Your task to perform on an android device: turn smart compose on in the gmail app Image 0: 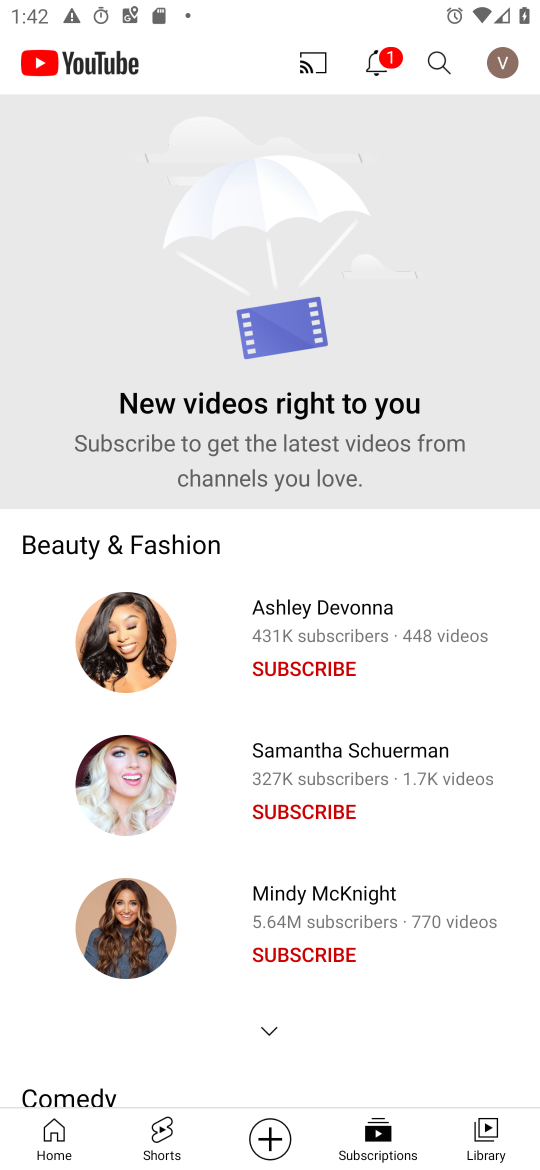
Step 0: press home button
Your task to perform on an android device: turn smart compose on in the gmail app Image 1: 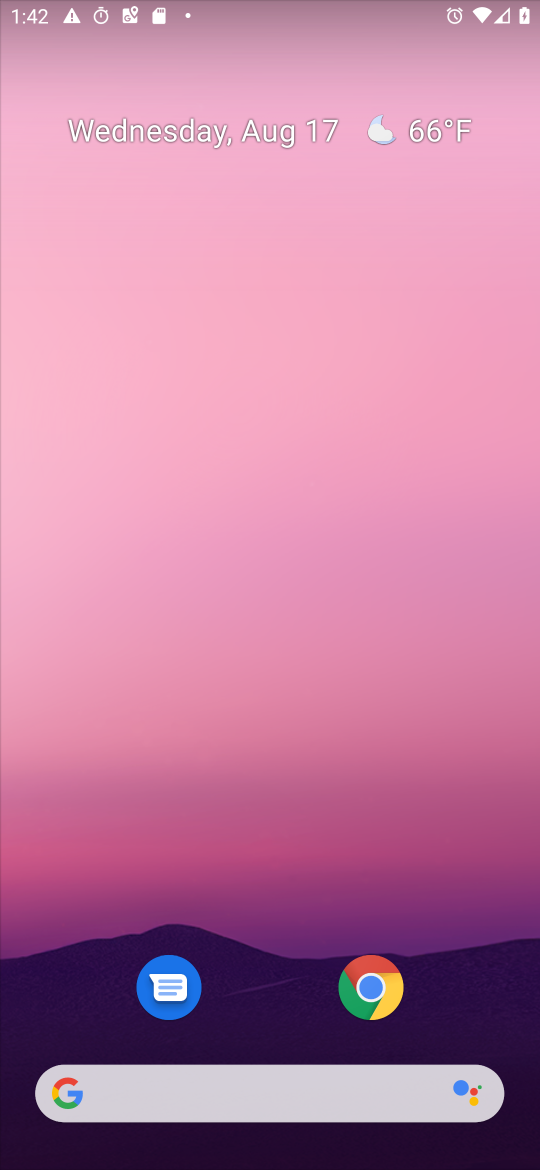
Step 1: drag from (75, 1148) to (416, 375)
Your task to perform on an android device: turn smart compose on in the gmail app Image 2: 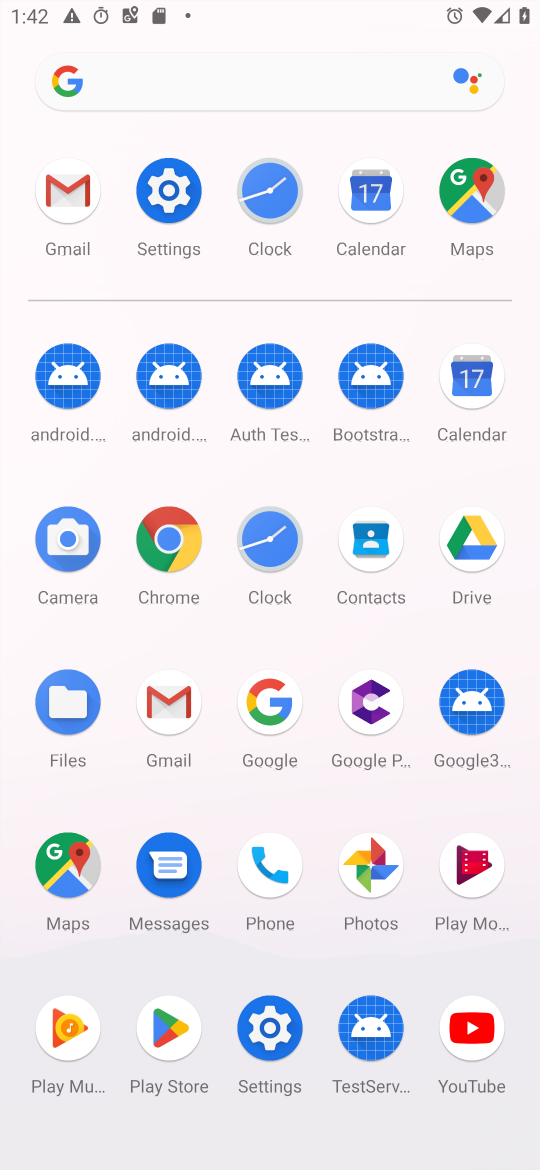
Step 2: click (169, 732)
Your task to perform on an android device: turn smart compose on in the gmail app Image 3: 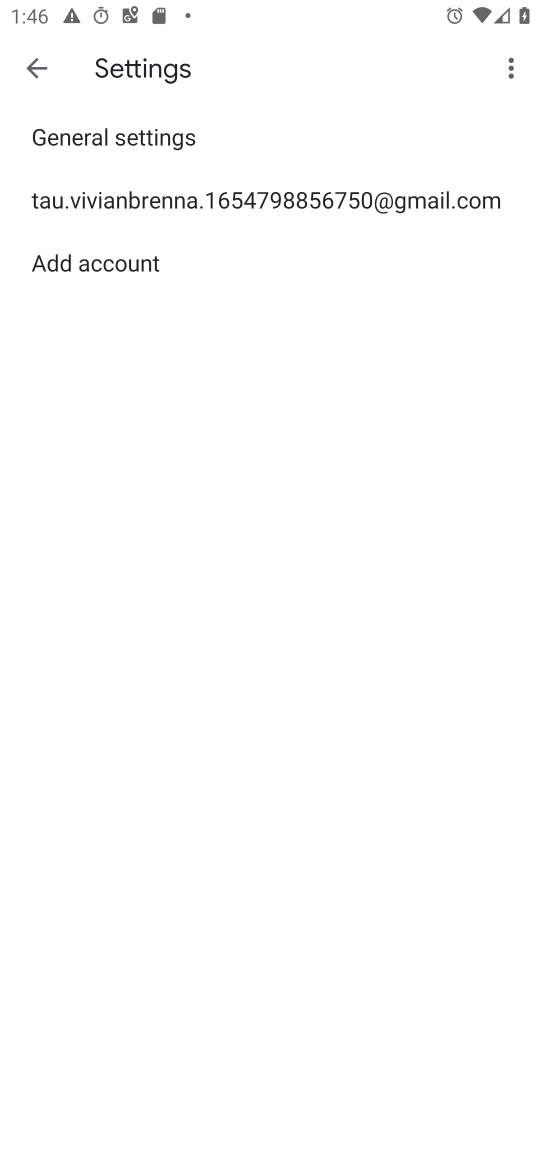
Step 3: press home button
Your task to perform on an android device: turn smart compose on in the gmail app Image 4: 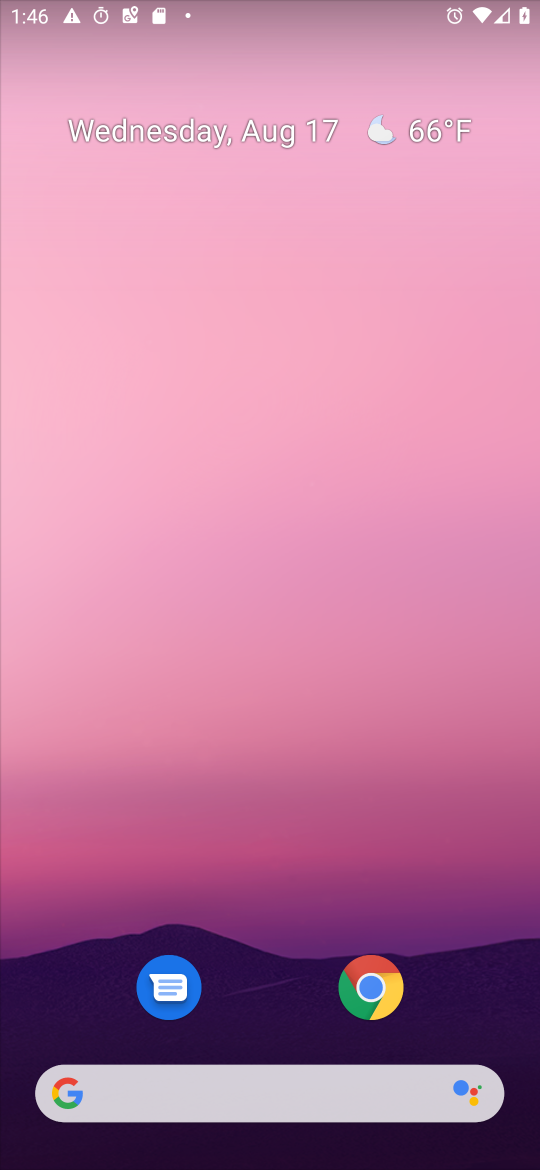
Step 4: click (376, 985)
Your task to perform on an android device: turn smart compose on in the gmail app Image 5: 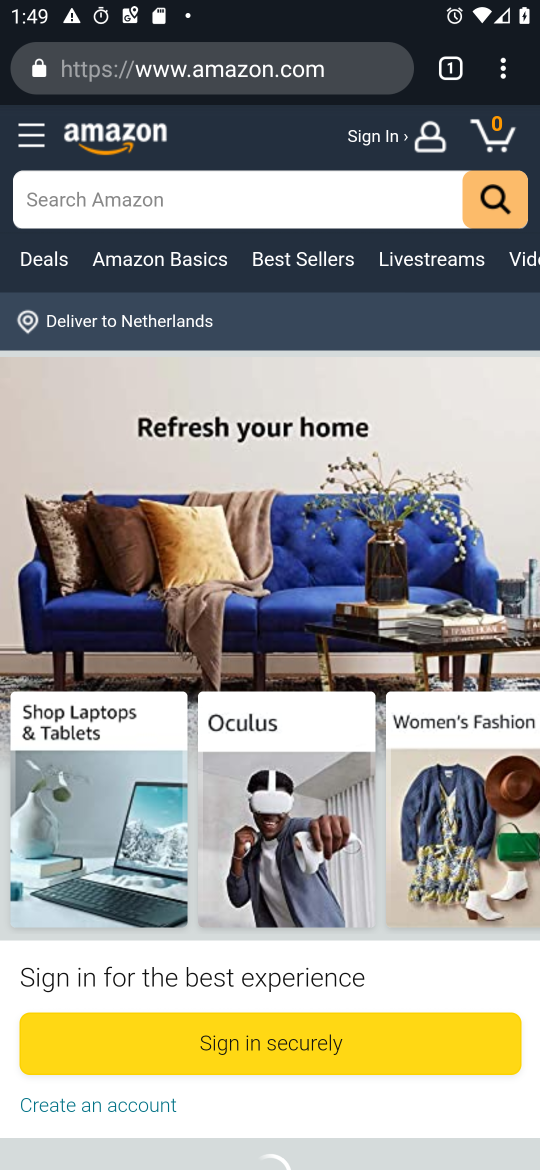
Step 5: press home button
Your task to perform on an android device: turn smart compose on in the gmail app Image 6: 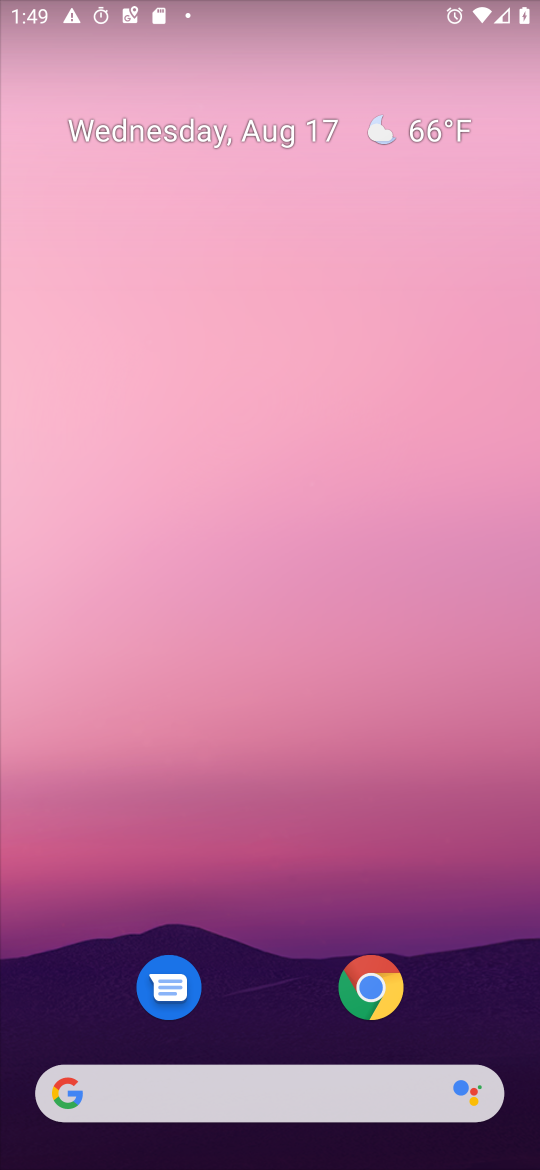
Step 6: drag from (12, 1102) to (476, 371)
Your task to perform on an android device: turn smart compose on in the gmail app Image 7: 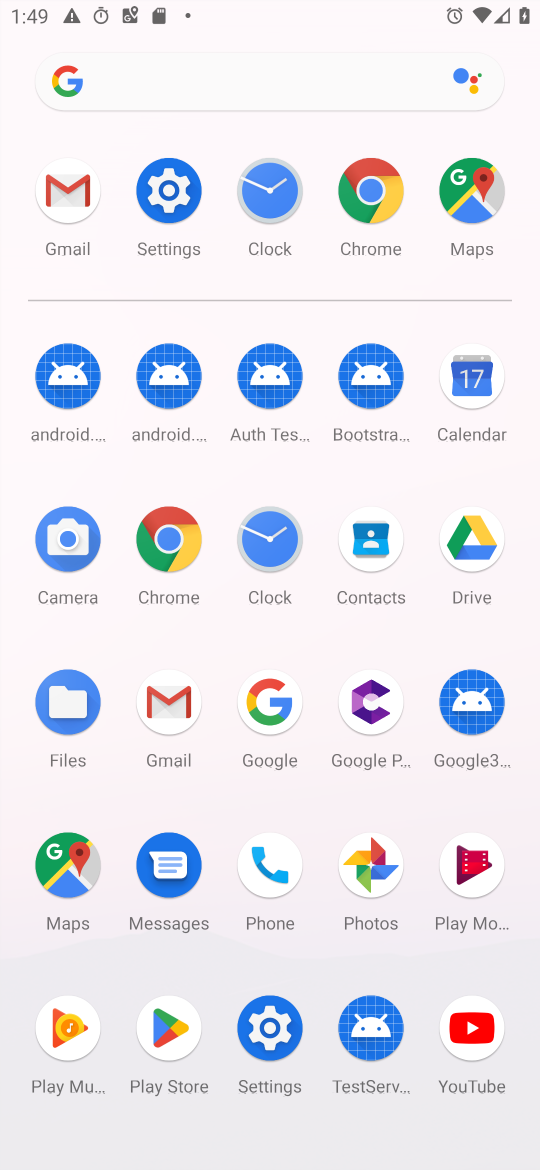
Step 7: click (190, 733)
Your task to perform on an android device: turn smart compose on in the gmail app Image 8: 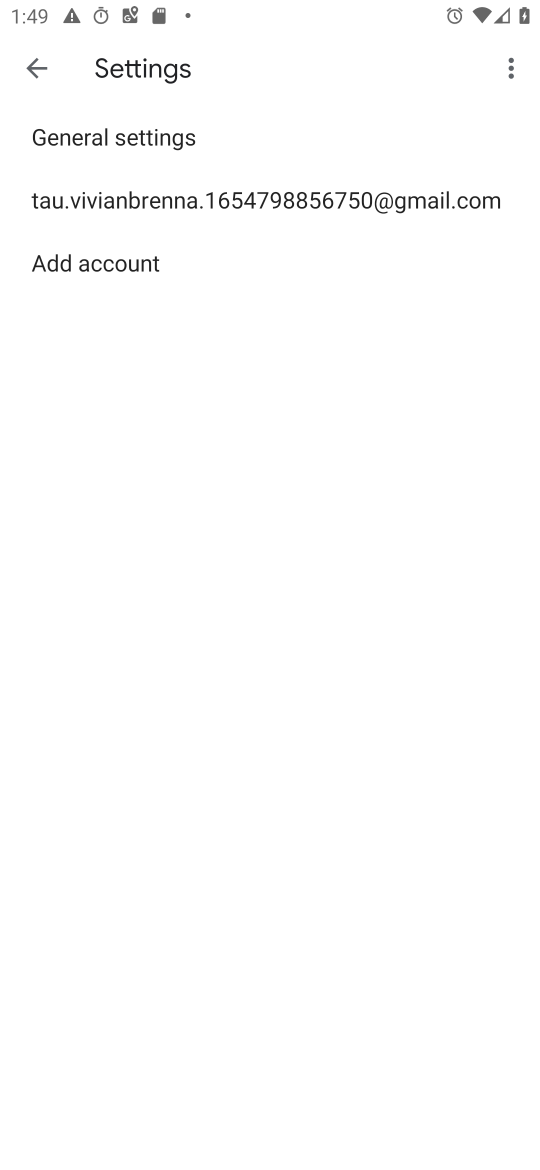
Step 8: click (120, 200)
Your task to perform on an android device: turn smart compose on in the gmail app Image 9: 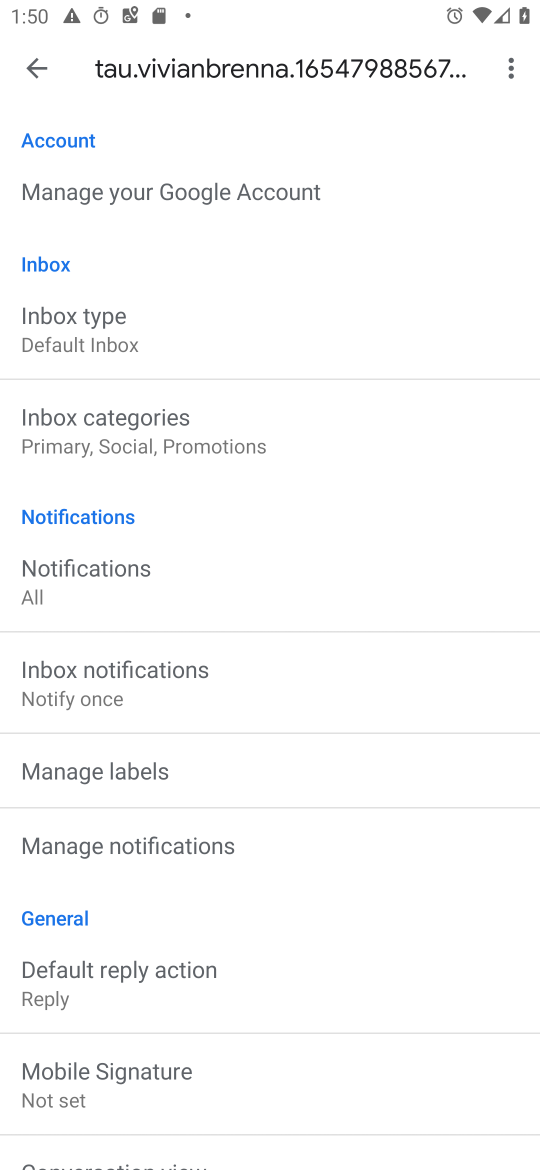
Step 9: click (175, 433)
Your task to perform on an android device: turn smart compose on in the gmail app Image 10: 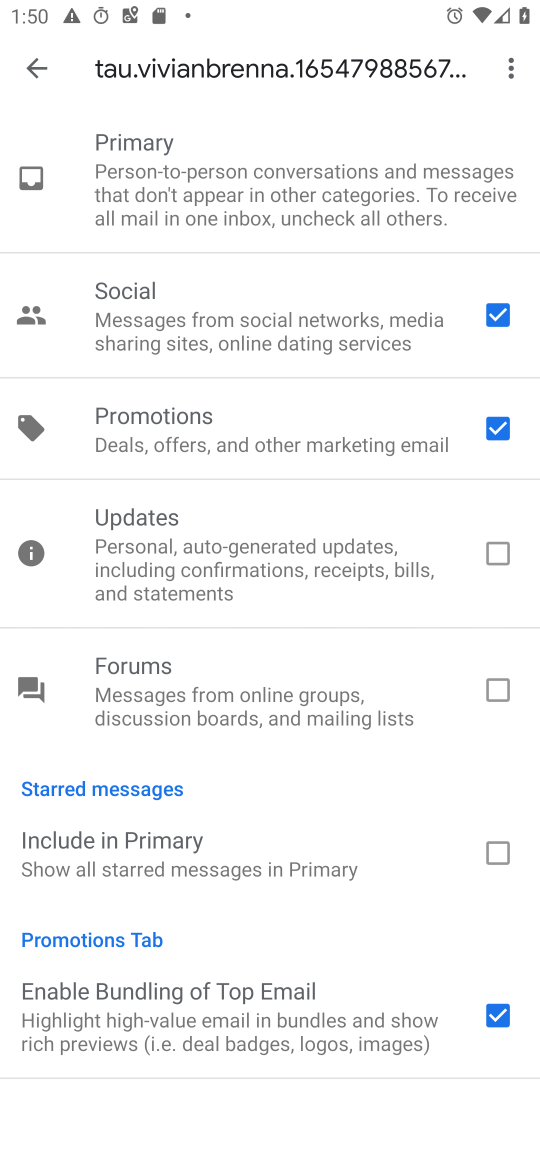
Step 10: click (263, 156)
Your task to perform on an android device: turn smart compose on in the gmail app Image 11: 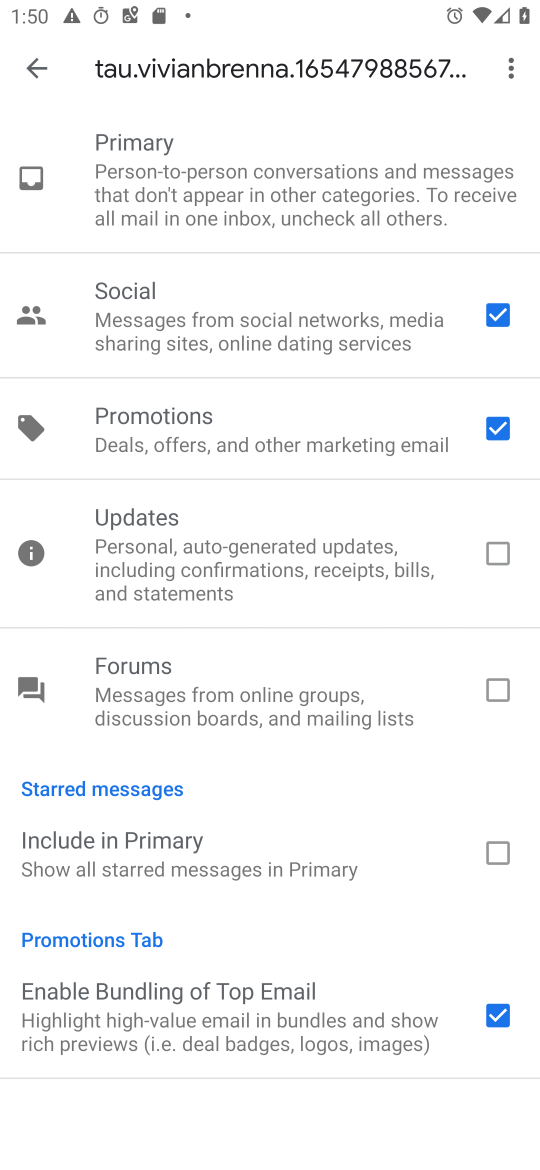
Step 11: task complete